Your task to perform on an android device: make emails show in primary in the gmail app Image 0: 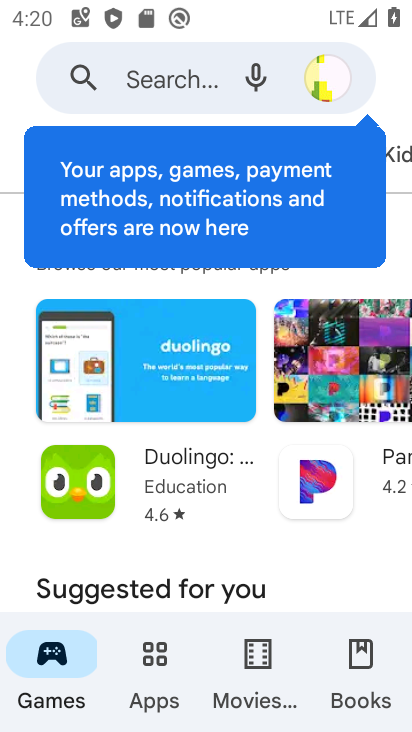
Step 0: press home button
Your task to perform on an android device: make emails show in primary in the gmail app Image 1: 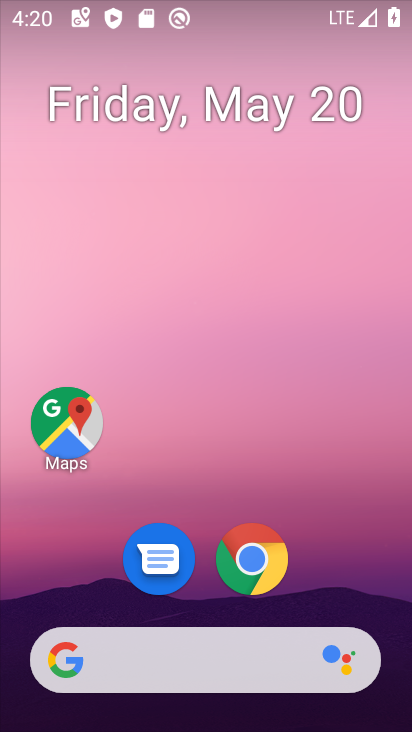
Step 1: drag from (214, 608) to (197, 183)
Your task to perform on an android device: make emails show in primary in the gmail app Image 2: 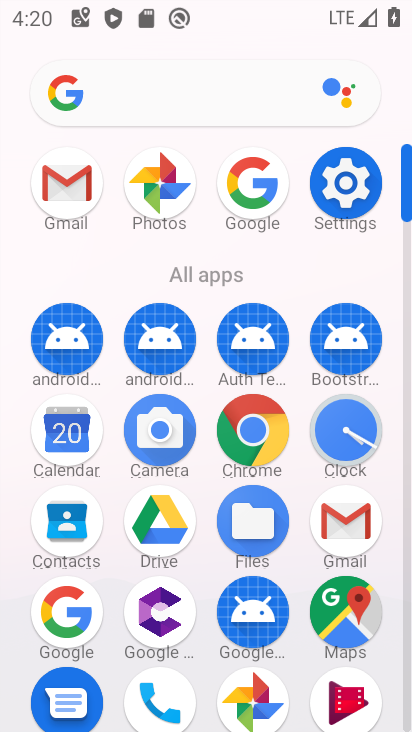
Step 2: click (77, 178)
Your task to perform on an android device: make emails show in primary in the gmail app Image 3: 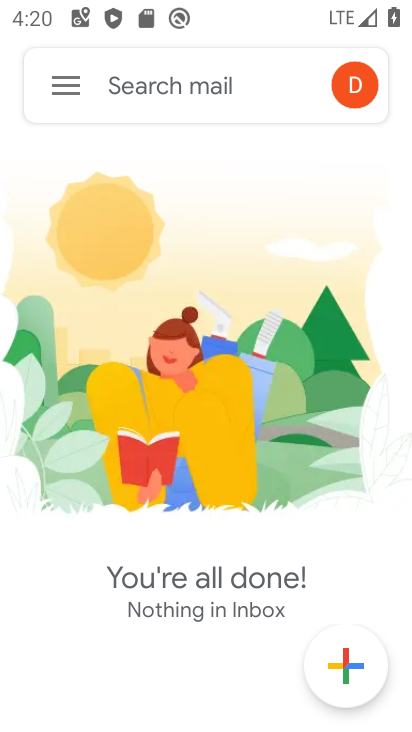
Step 3: click (70, 81)
Your task to perform on an android device: make emails show in primary in the gmail app Image 4: 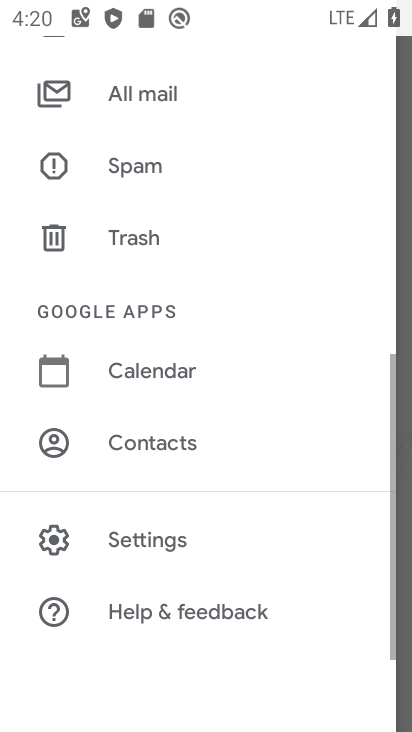
Step 4: click (126, 543)
Your task to perform on an android device: make emails show in primary in the gmail app Image 5: 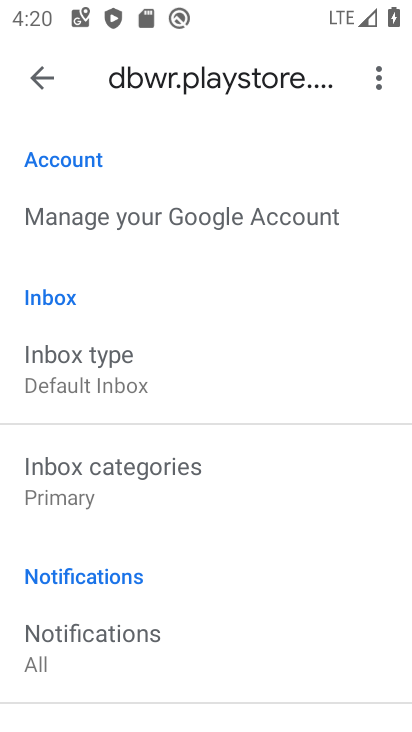
Step 5: task complete